Your task to perform on an android device: change the clock display to digital Image 0: 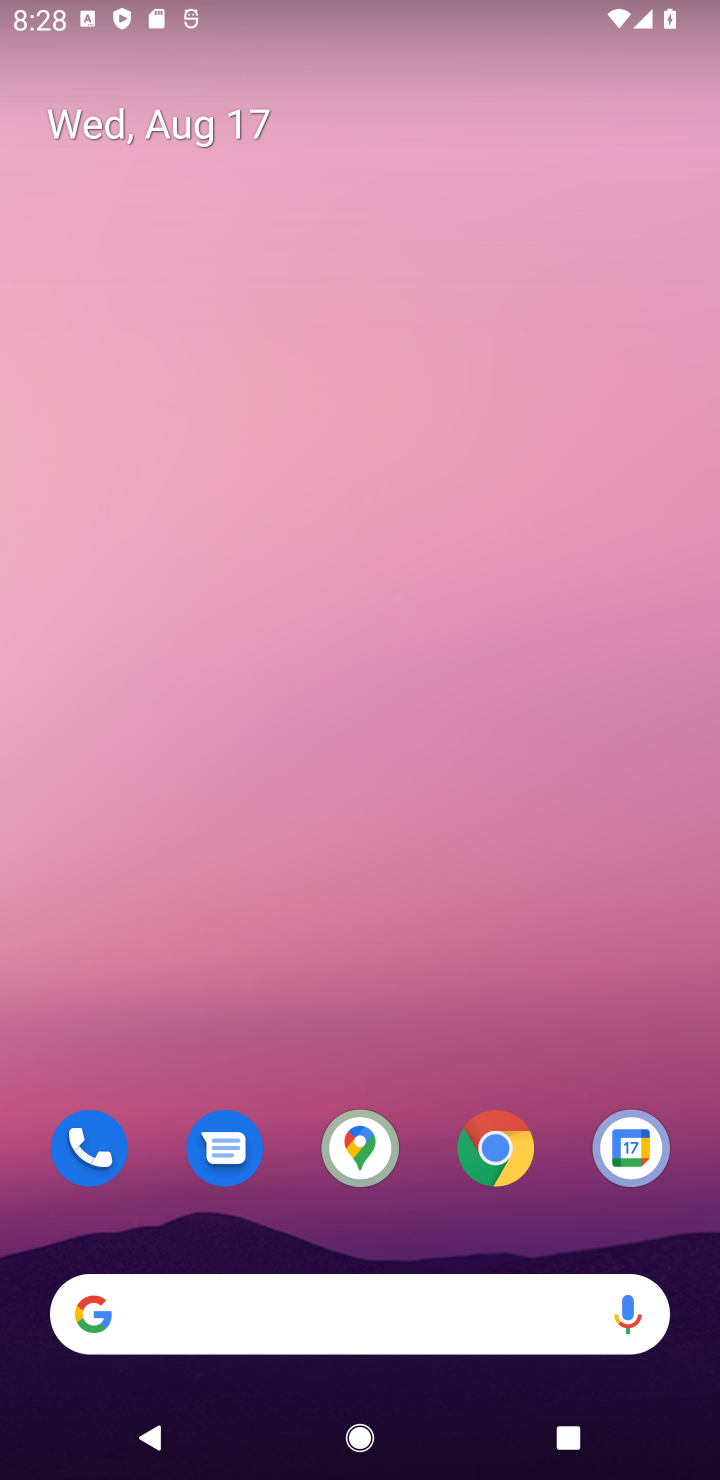
Step 0: drag from (569, 1229) to (555, 228)
Your task to perform on an android device: change the clock display to digital Image 1: 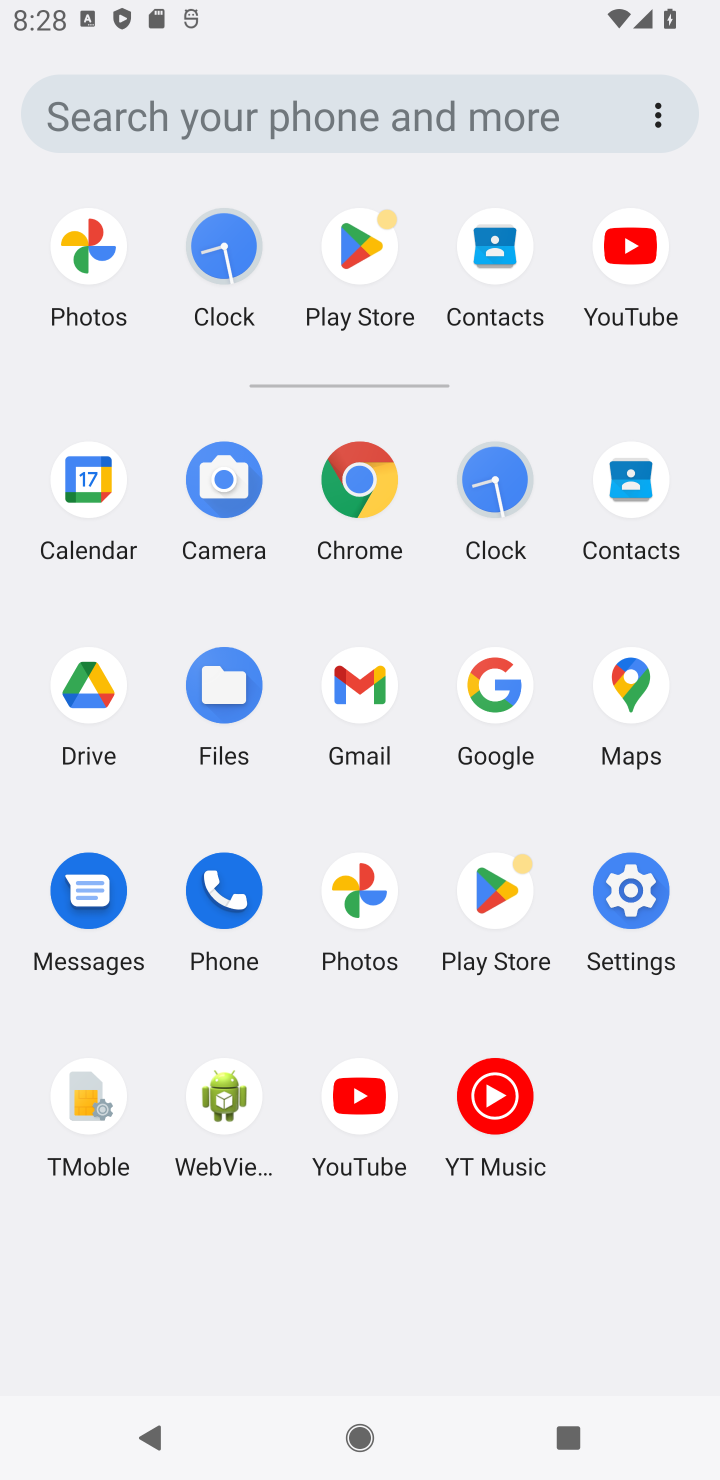
Step 1: click (496, 478)
Your task to perform on an android device: change the clock display to digital Image 2: 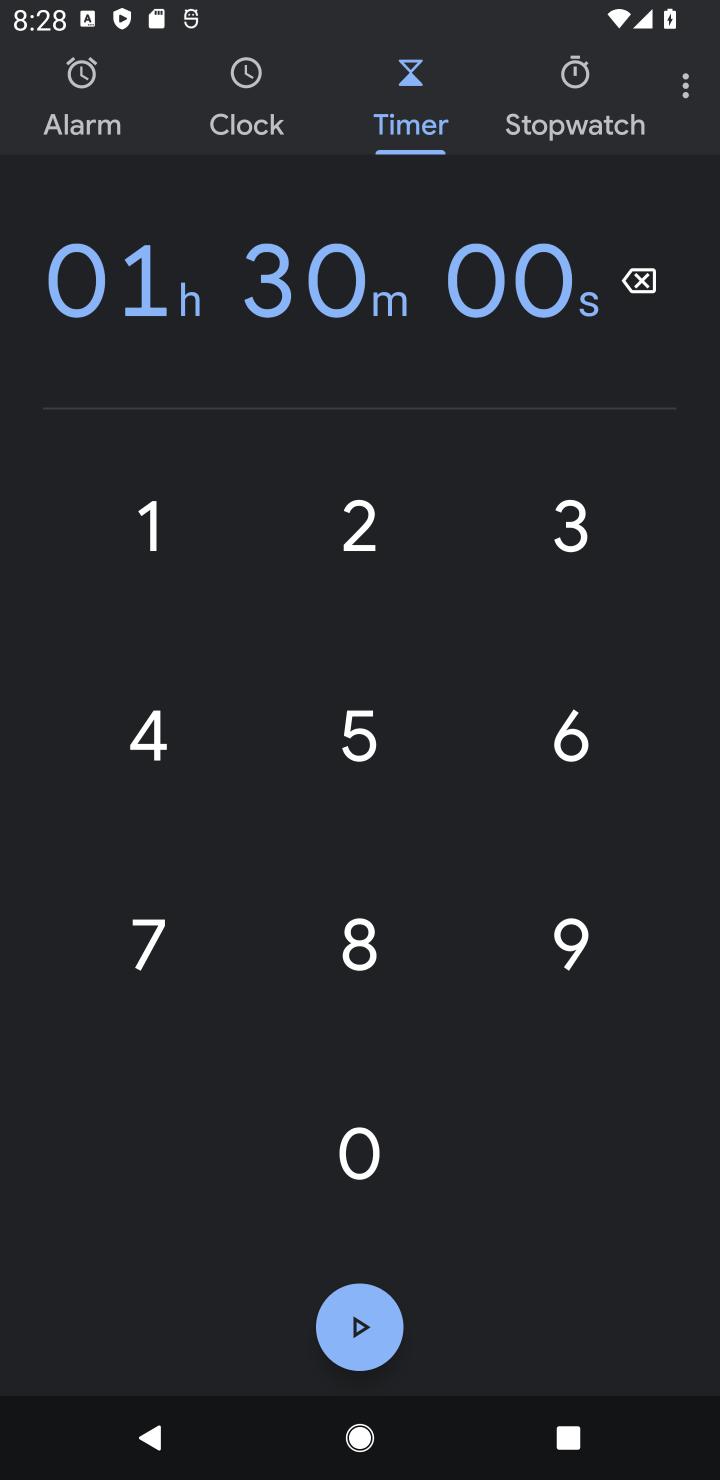
Step 2: click (681, 101)
Your task to perform on an android device: change the clock display to digital Image 3: 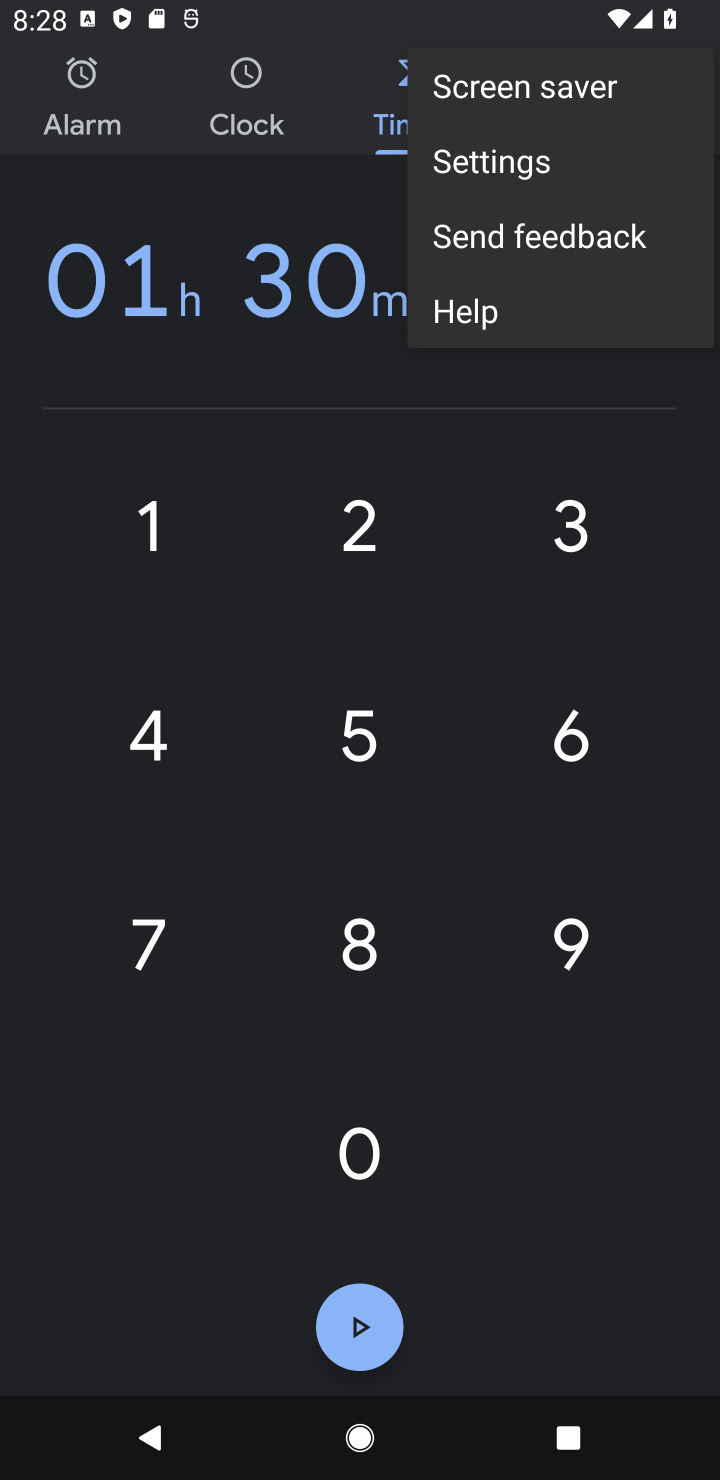
Step 3: click (464, 150)
Your task to perform on an android device: change the clock display to digital Image 4: 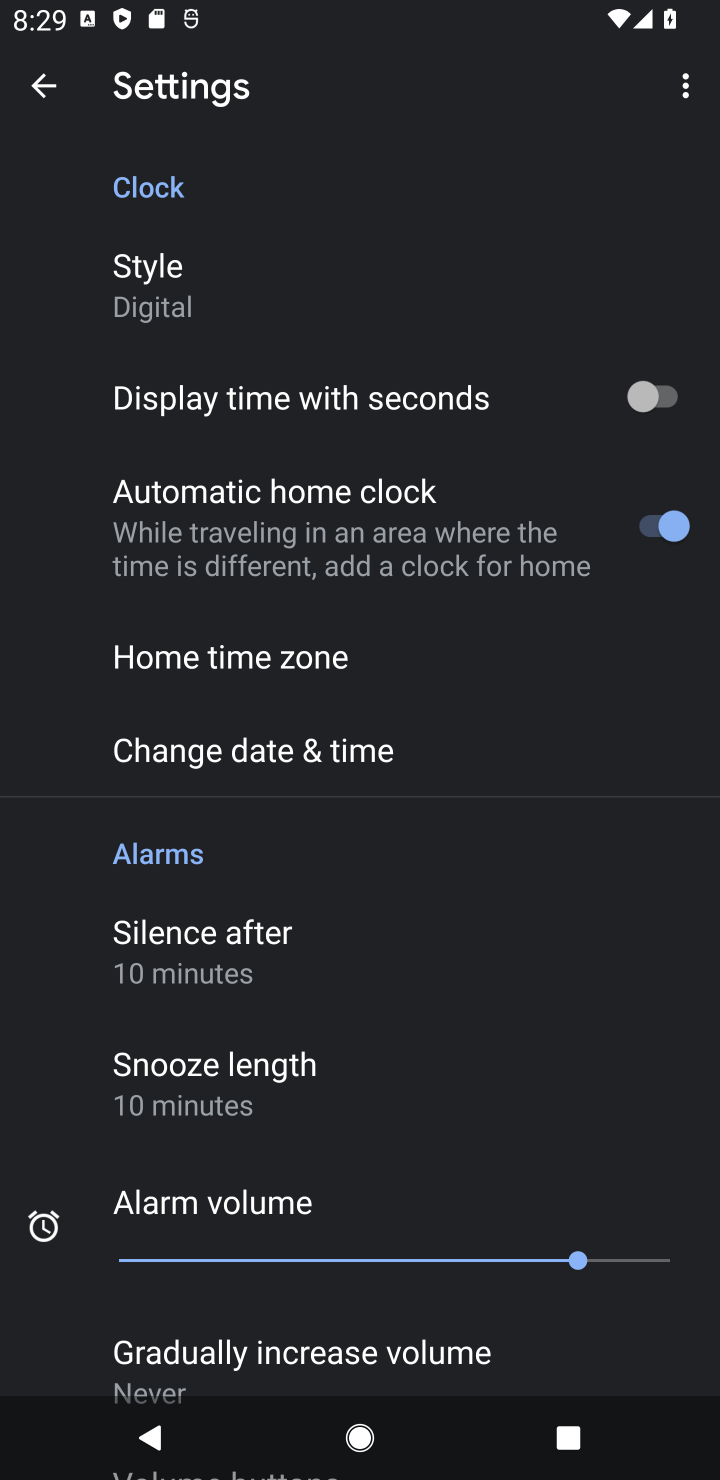
Step 4: task complete